Your task to perform on an android device: turn off location Image 0: 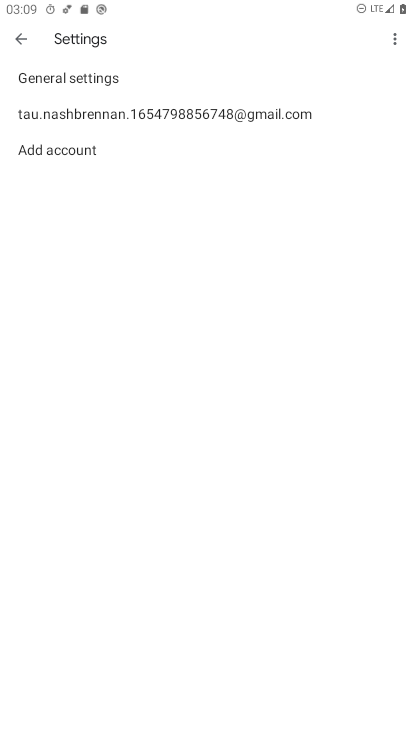
Step 0: press home button
Your task to perform on an android device: turn off location Image 1: 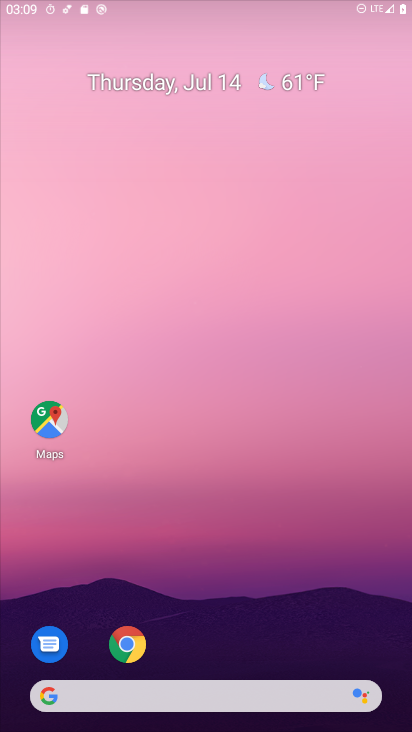
Step 1: drag from (301, 624) to (279, 118)
Your task to perform on an android device: turn off location Image 2: 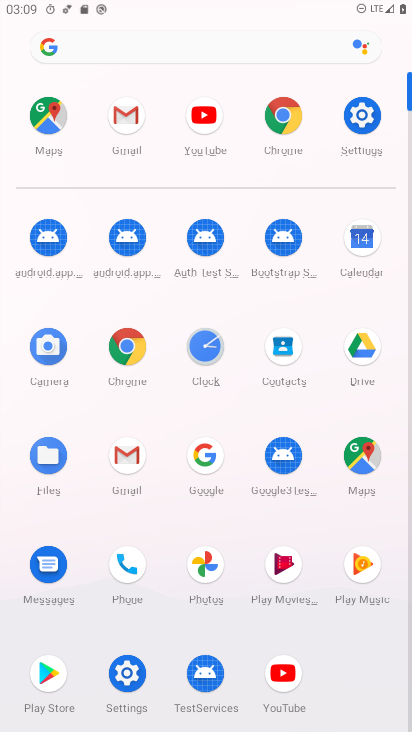
Step 2: click (359, 121)
Your task to perform on an android device: turn off location Image 3: 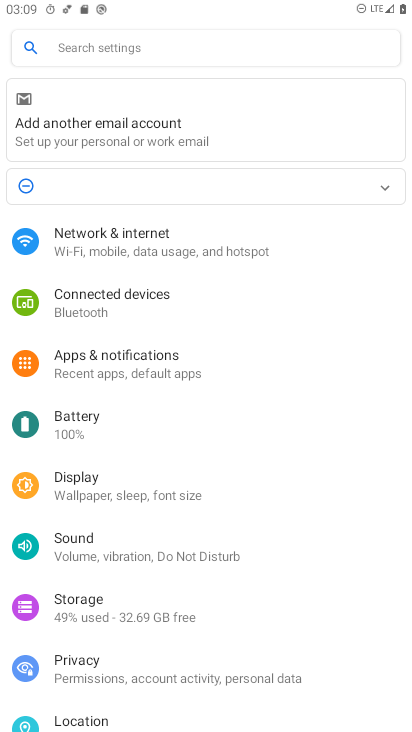
Step 3: click (90, 719)
Your task to perform on an android device: turn off location Image 4: 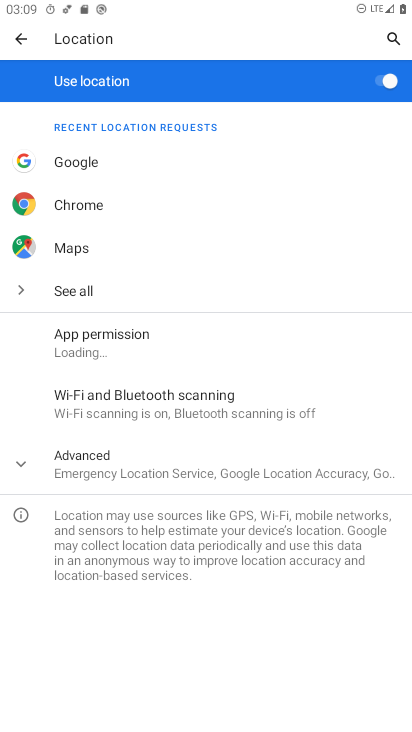
Step 4: click (383, 75)
Your task to perform on an android device: turn off location Image 5: 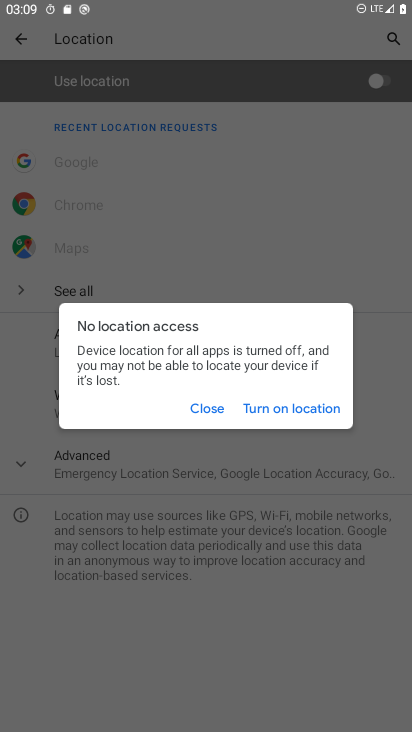
Step 5: task complete